Your task to perform on an android device: turn on sleep mode Image 0: 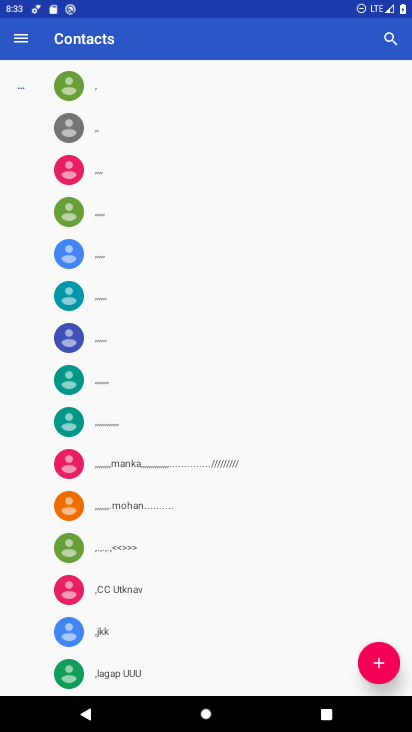
Step 0: press home button
Your task to perform on an android device: turn on sleep mode Image 1: 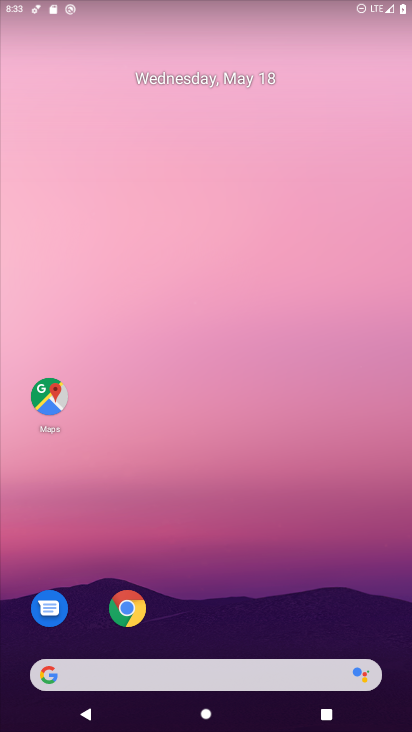
Step 1: drag from (248, 609) to (248, 142)
Your task to perform on an android device: turn on sleep mode Image 2: 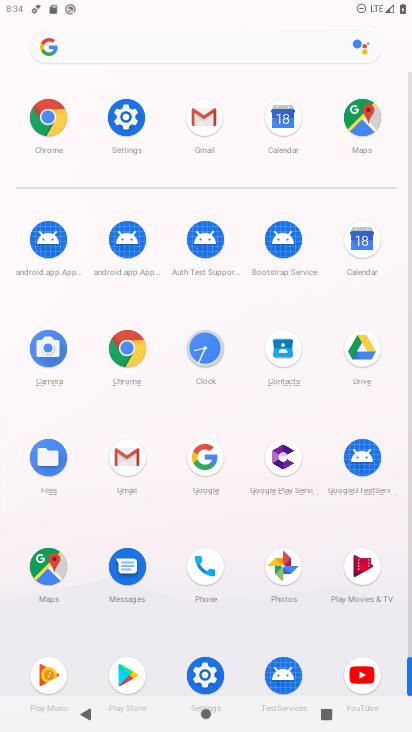
Step 2: drag from (370, 3) to (304, 356)
Your task to perform on an android device: turn on sleep mode Image 3: 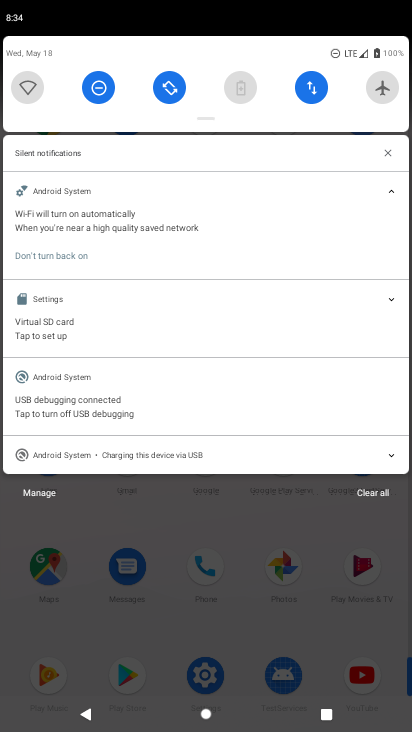
Step 3: drag from (263, 117) to (232, 524)
Your task to perform on an android device: turn on sleep mode Image 4: 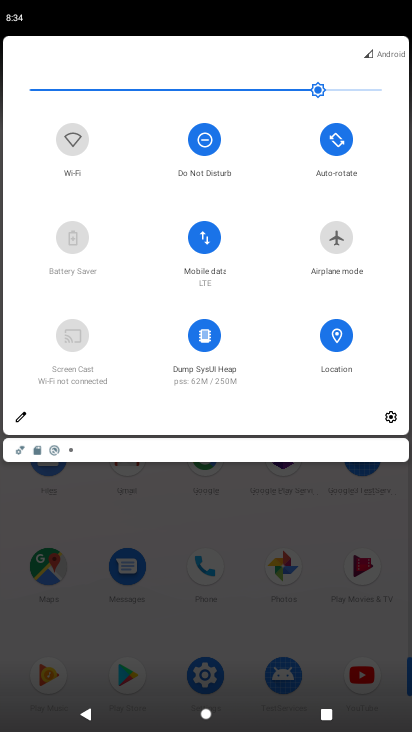
Step 4: click (272, 352)
Your task to perform on an android device: turn on sleep mode Image 5: 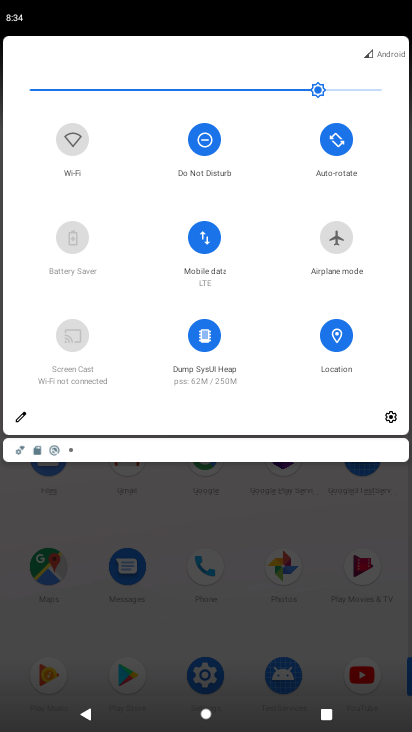
Step 5: drag from (308, 309) to (44, 294)
Your task to perform on an android device: turn on sleep mode Image 6: 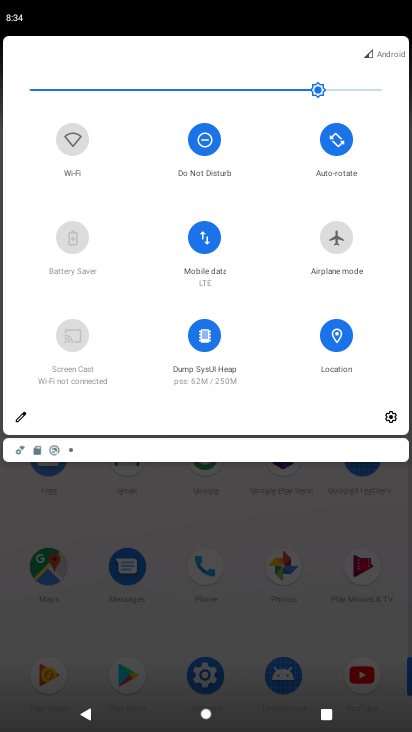
Step 6: drag from (335, 299) to (100, 283)
Your task to perform on an android device: turn on sleep mode Image 7: 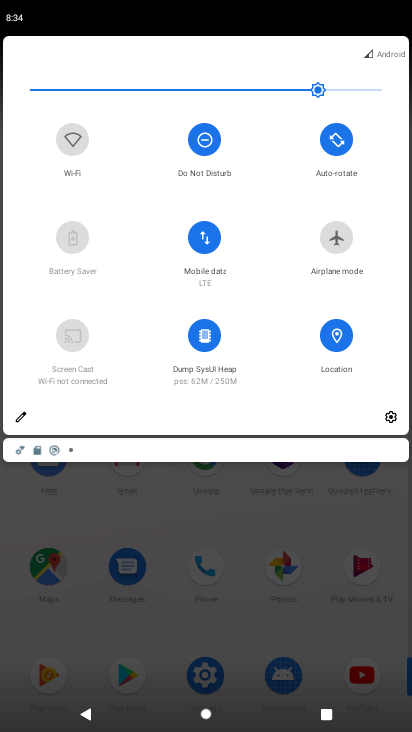
Step 7: click (22, 415)
Your task to perform on an android device: turn on sleep mode Image 8: 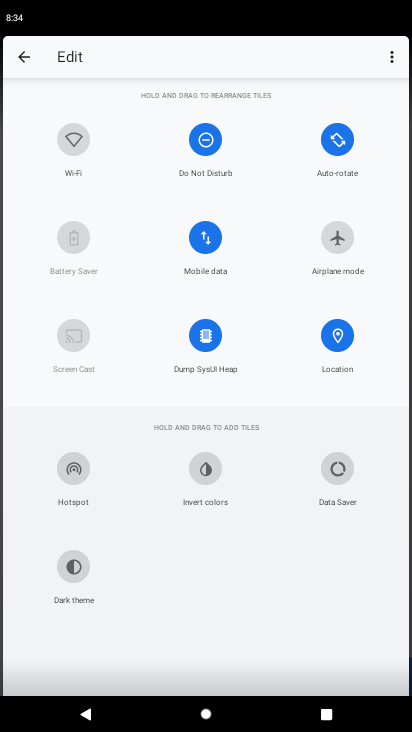
Step 8: task complete